Your task to perform on an android device: turn notification dots on Image 0: 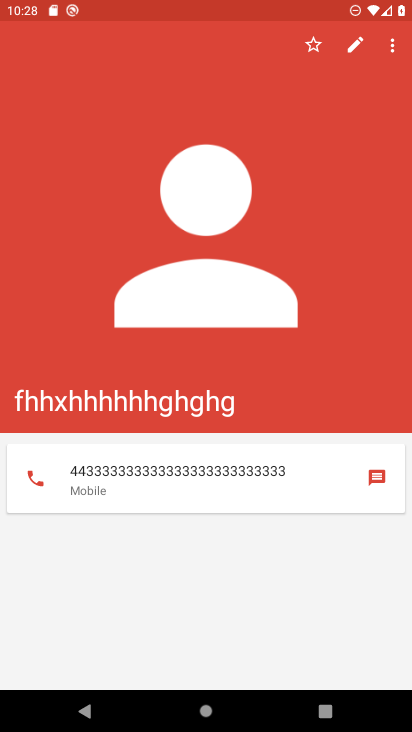
Step 0: press home button
Your task to perform on an android device: turn notification dots on Image 1: 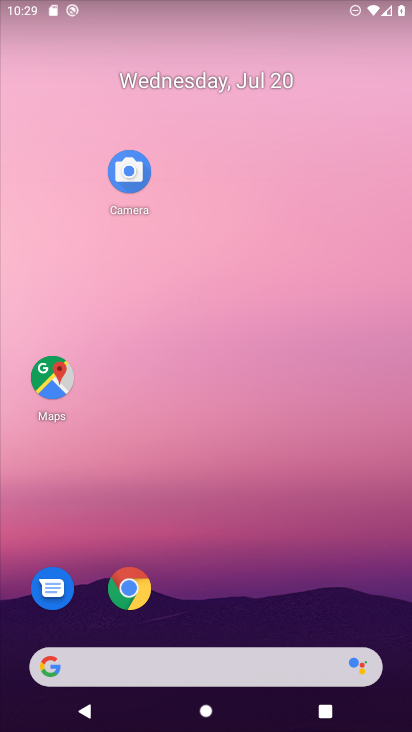
Step 1: drag from (261, 589) to (245, 115)
Your task to perform on an android device: turn notification dots on Image 2: 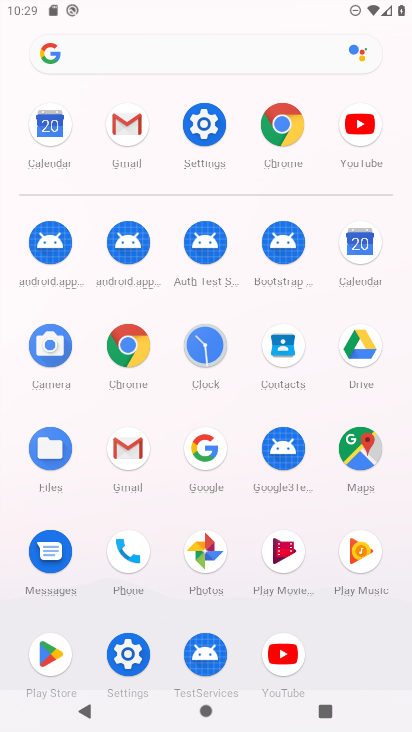
Step 2: click (207, 119)
Your task to perform on an android device: turn notification dots on Image 3: 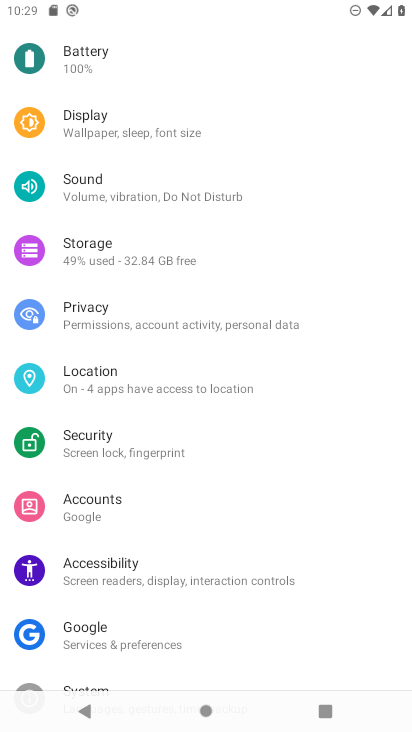
Step 3: drag from (165, 84) to (154, 493)
Your task to perform on an android device: turn notification dots on Image 4: 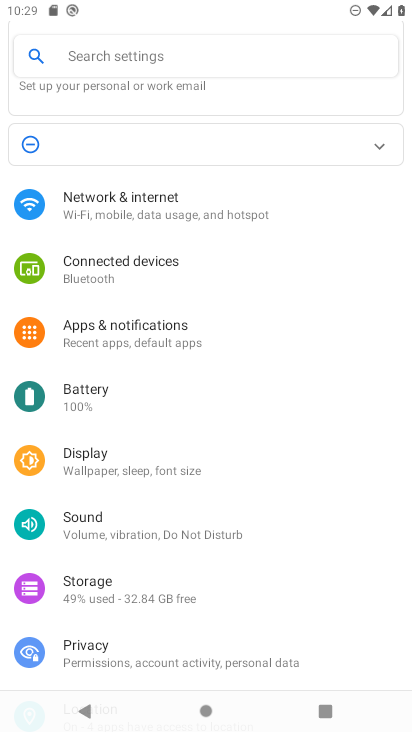
Step 4: click (129, 327)
Your task to perform on an android device: turn notification dots on Image 5: 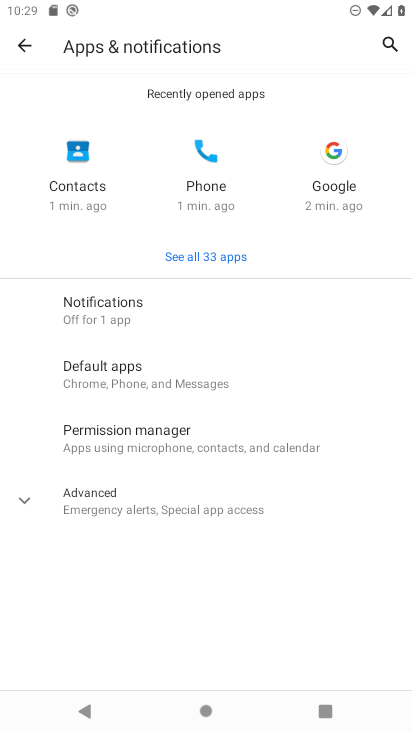
Step 5: click (127, 309)
Your task to perform on an android device: turn notification dots on Image 6: 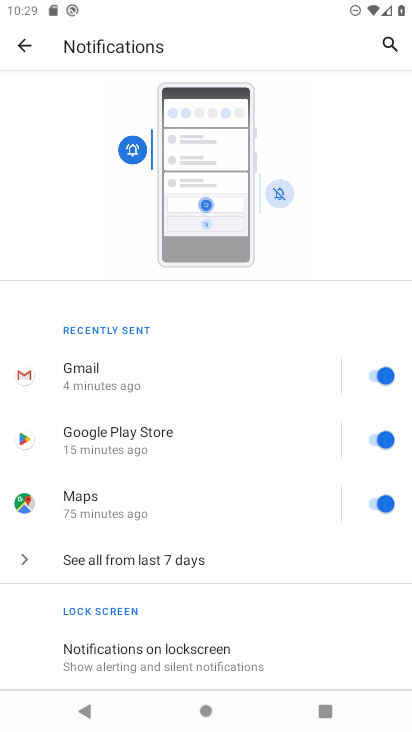
Step 6: drag from (220, 622) to (228, 276)
Your task to perform on an android device: turn notification dots on Image 7: 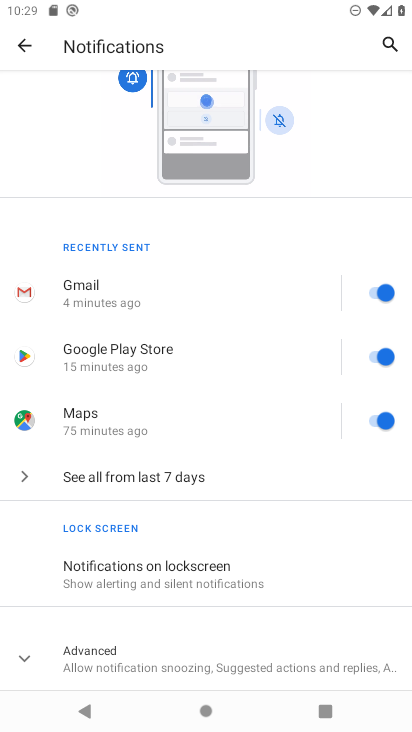
Step 7: click (29, 662)
Your task to perform on an android device: turn notification dots on Image 8: 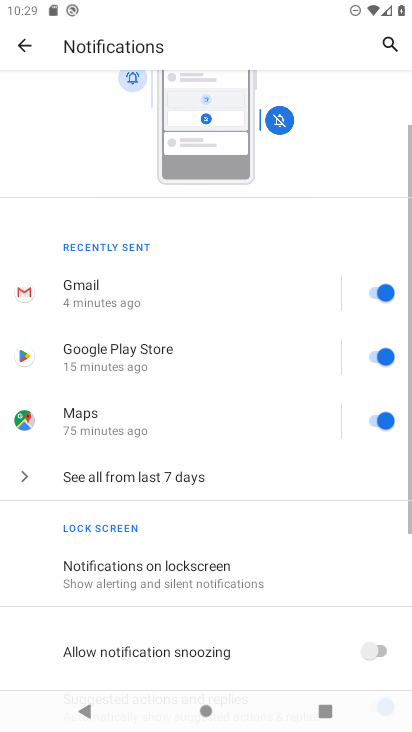
Step 8: drag from (252, 617) to (215, 257)
Your task to perform on an android device: turn notification dots on Image 9: 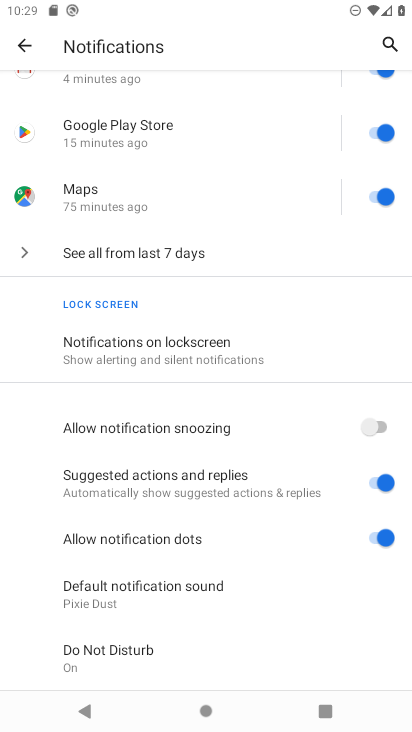
Step 9: click (387, 536)
Your task to perform on an android device: turn notification dots on Image 10: 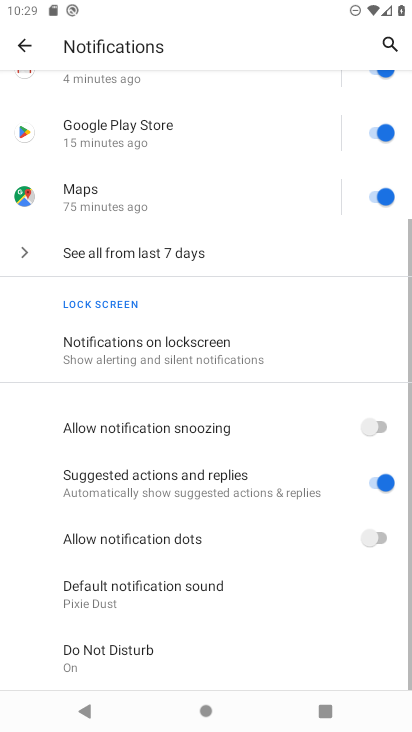
Step 10: click (387, 536)
Your task to perform on an android device: turn notification dots on Image 11: 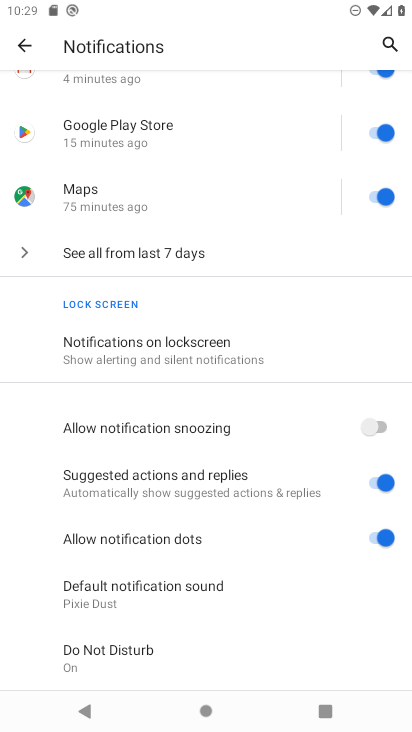
Step 11: task complete